Your task to perform on an android device: Open internet settings Image 0: 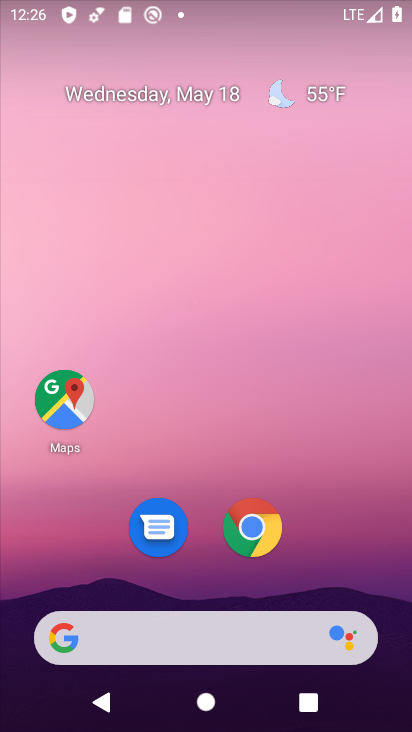
Step 0: drag from (330, 464) to (266, 16)
Your task to perform on an android device: Open internet settings Image 1: 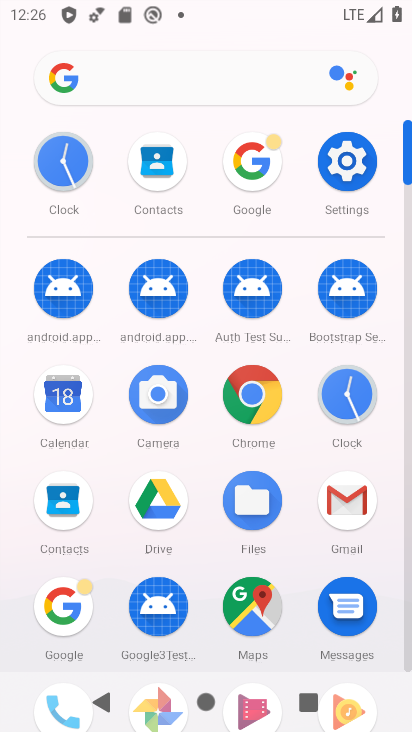
Step 1: click (351, 185)
Your task to perform on an android device: Open internet settings Image 2: 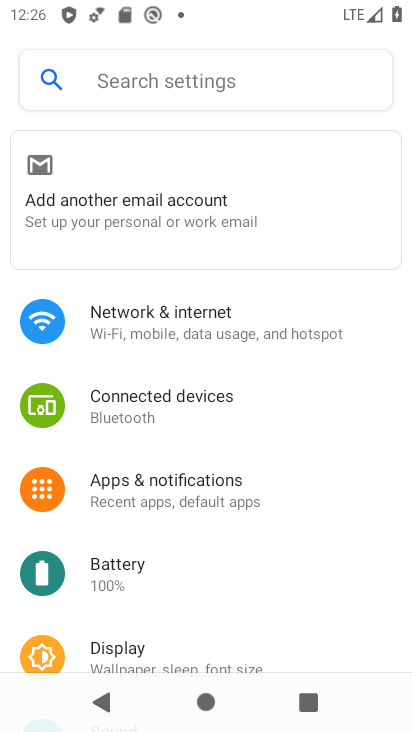
Step 2: click (245, 301)
Your task to perform on an android device: Open internet settings Image 3: 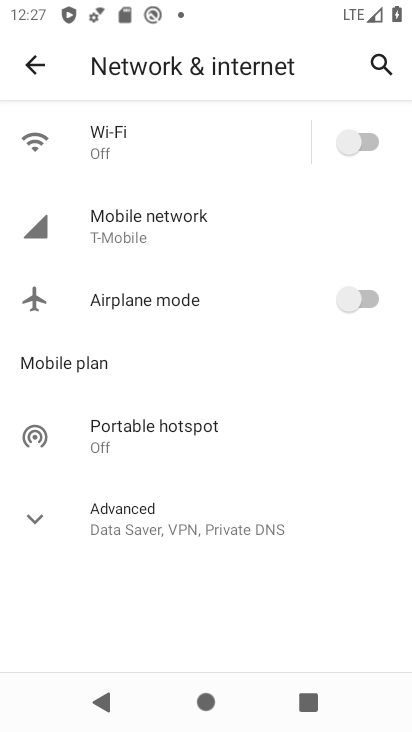
Step 3: task complete